Your task to perform on an android device: turn off airplane mode Image 0: 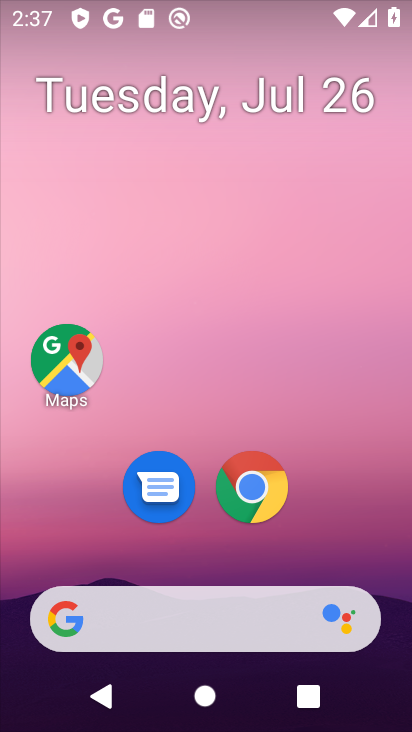
Step 0: drag from (347, 6) to (197, 600)
Your task to perform on an android device: turn off airplane mode Image 1: 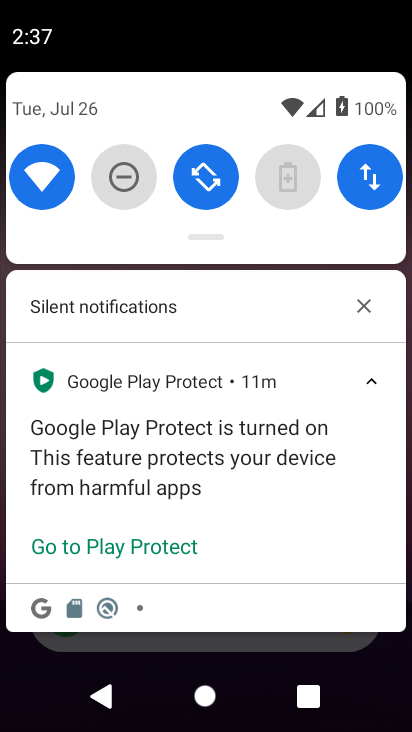
Step 1: task complete